Your task to perform on an android device: Show me the alarms in the clock app Image 0: 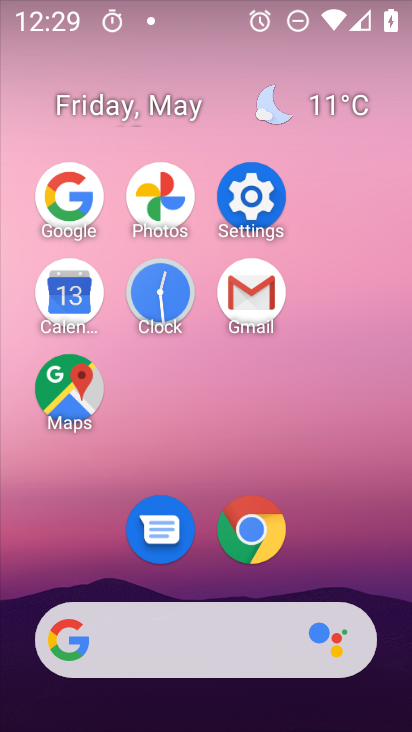
Step 0: click (167, 288)
Your task to perform on an android device: Show me the alarms in the clock app Image 1: 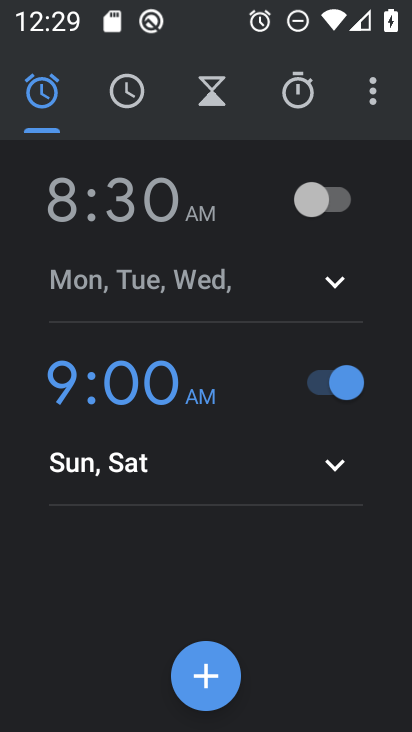
Step 1: task complete